Your task to perform on an android device: turn off location history Image 0: 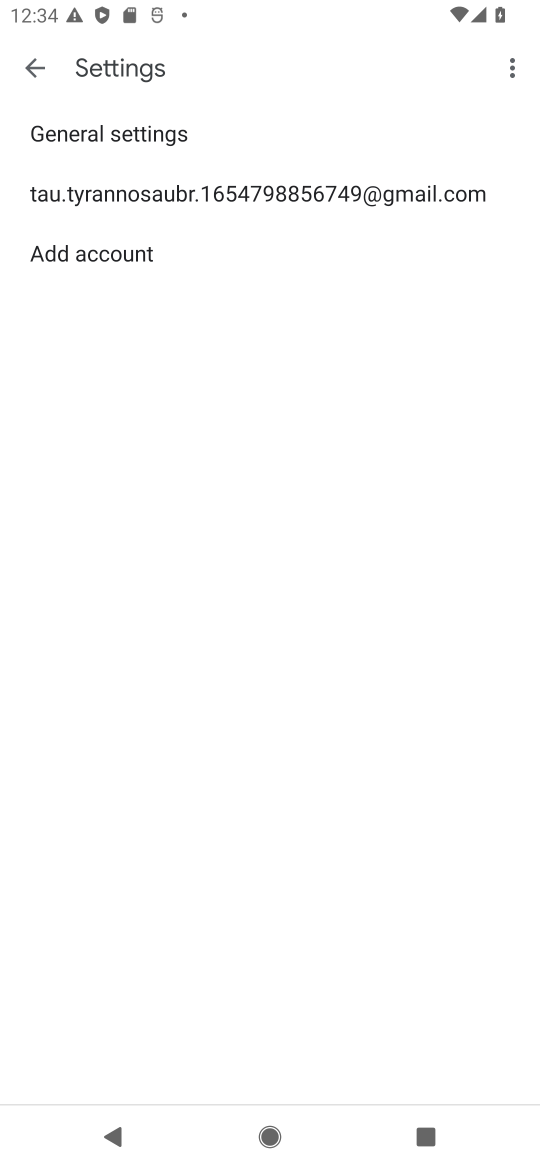
Step 0: press home button
Your task to perform on an android device: turn off location history Image 1: 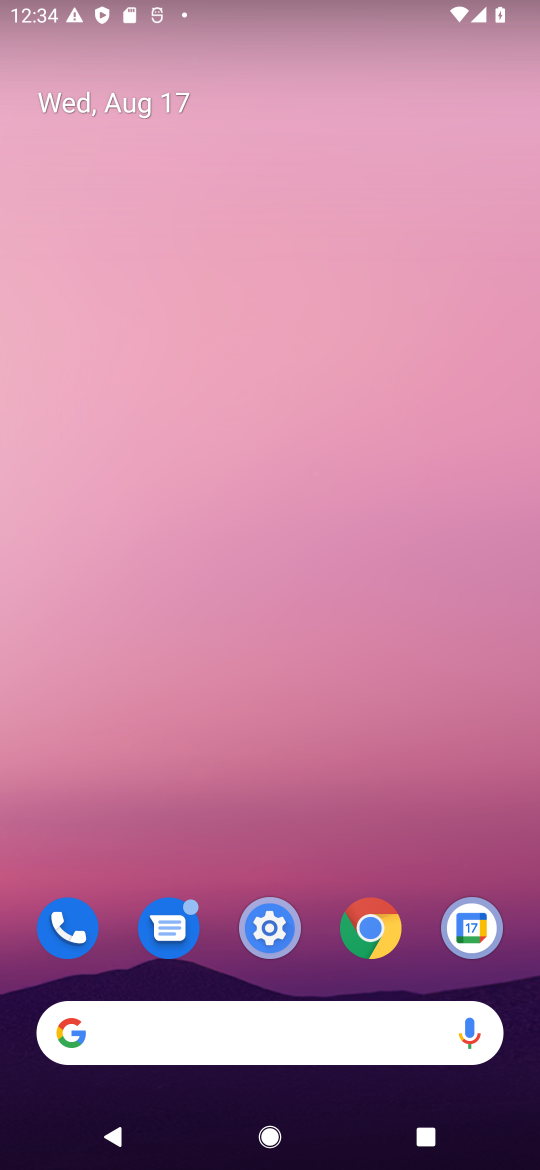
Step 1: click (262, 915)
Your task to perform on an android device: turn off location history Image 2: 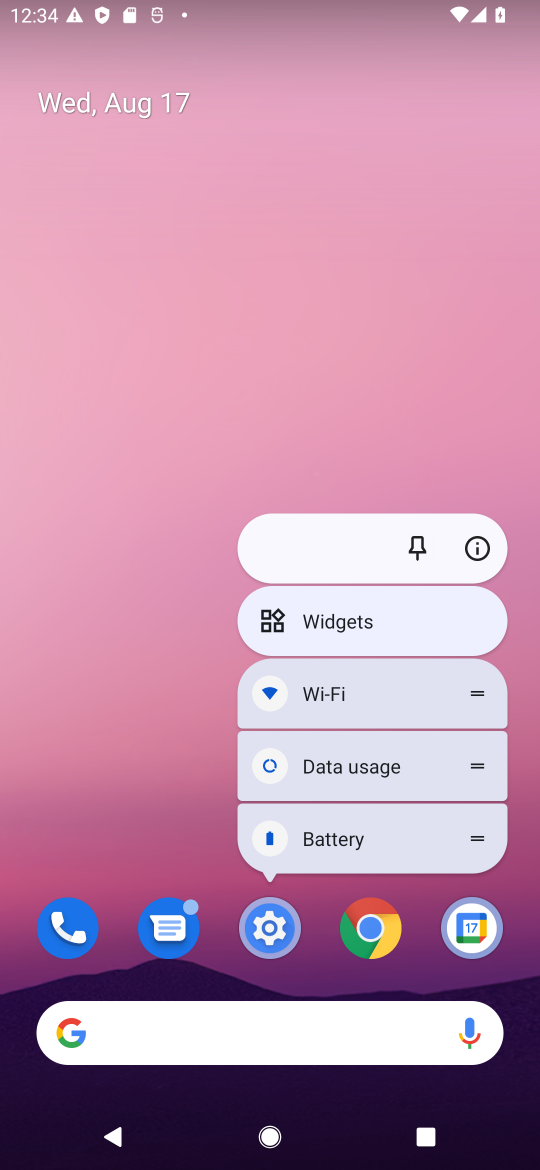
Step 2: click (267, 927)
Your task to perform on an android device: turn off location history Image 3: 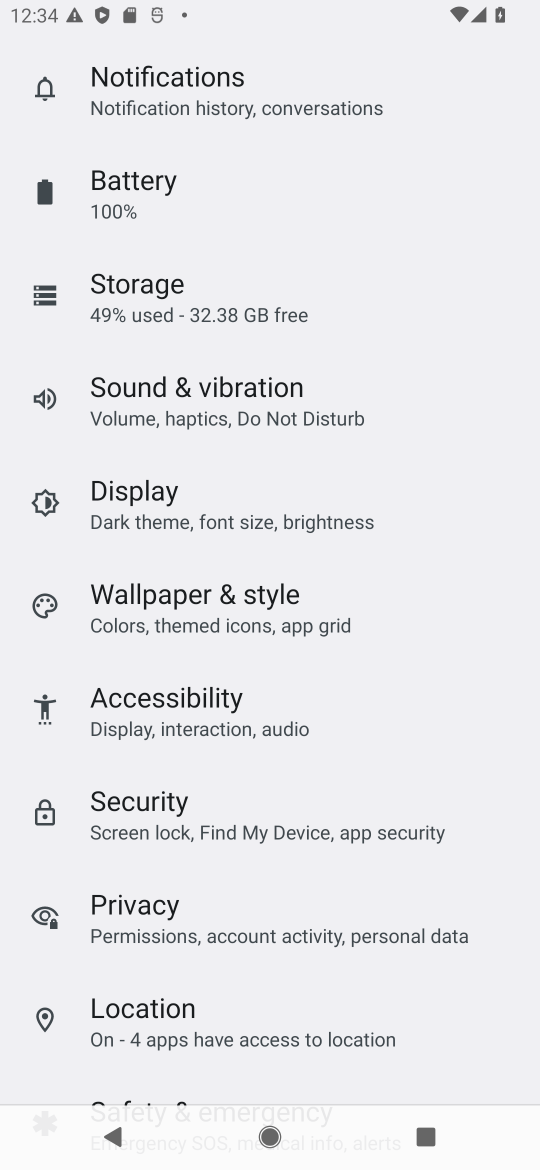
Step 3: click (211, 1019)
Your task to perform on an android device: turn off location history Image 4: 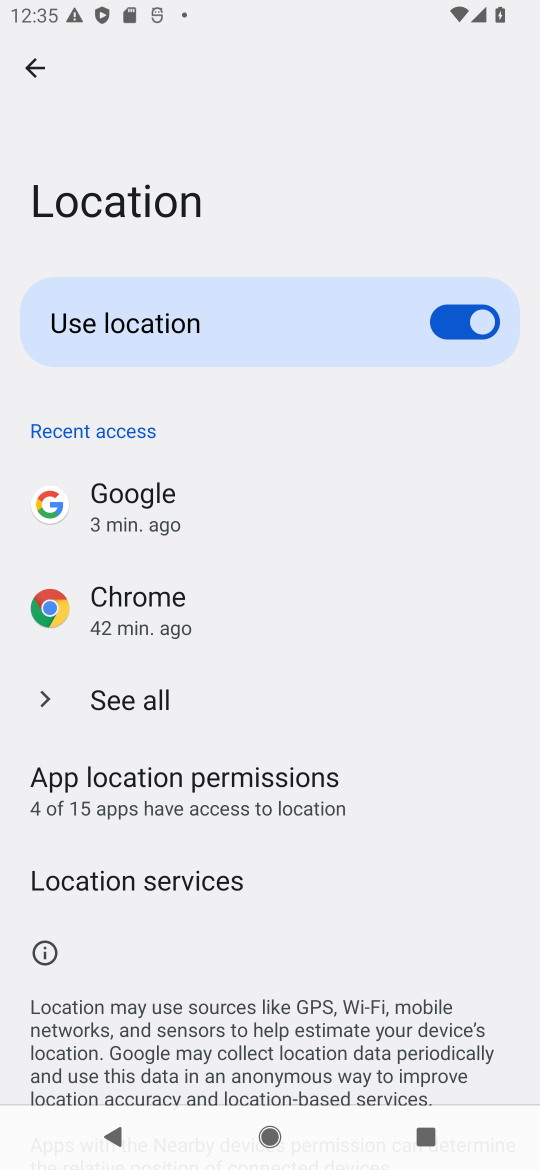
Step 4: click (223, 887)
Your task to perform on an android device: turn off location history Image 5: 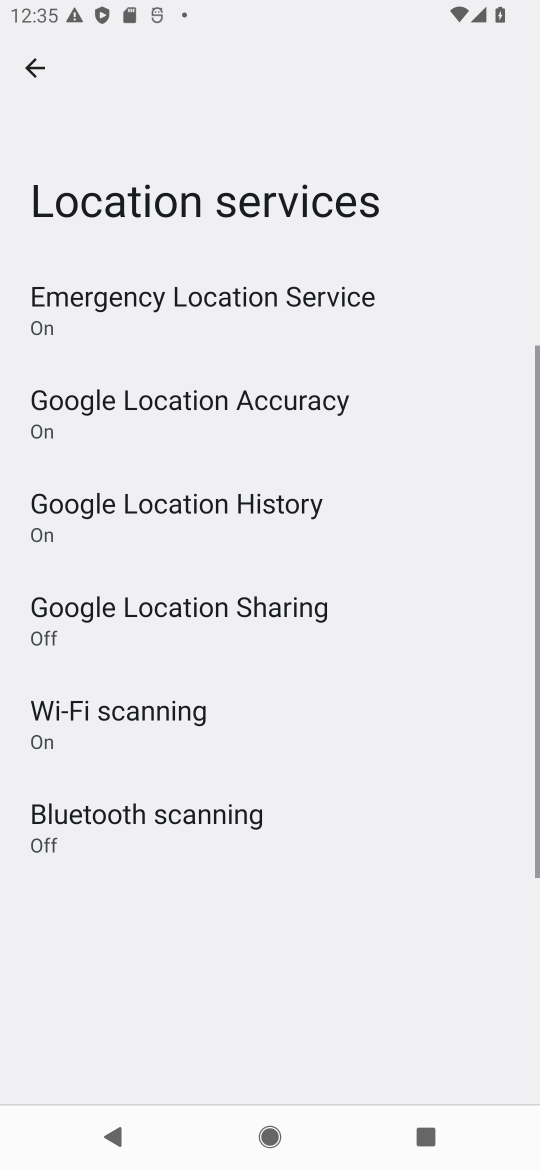
Step 5: click (224, 503)
Your task to perform on an android device: turn off location history Image 6: 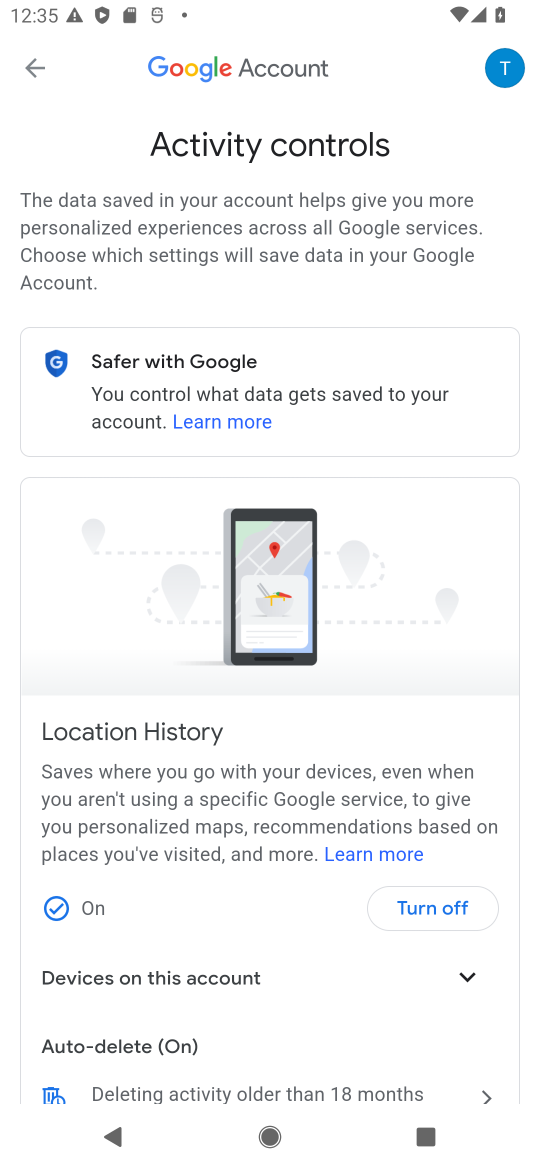
Step 6: click (418, 901)
Your task to perform on an android device: turn off location history Image 7: 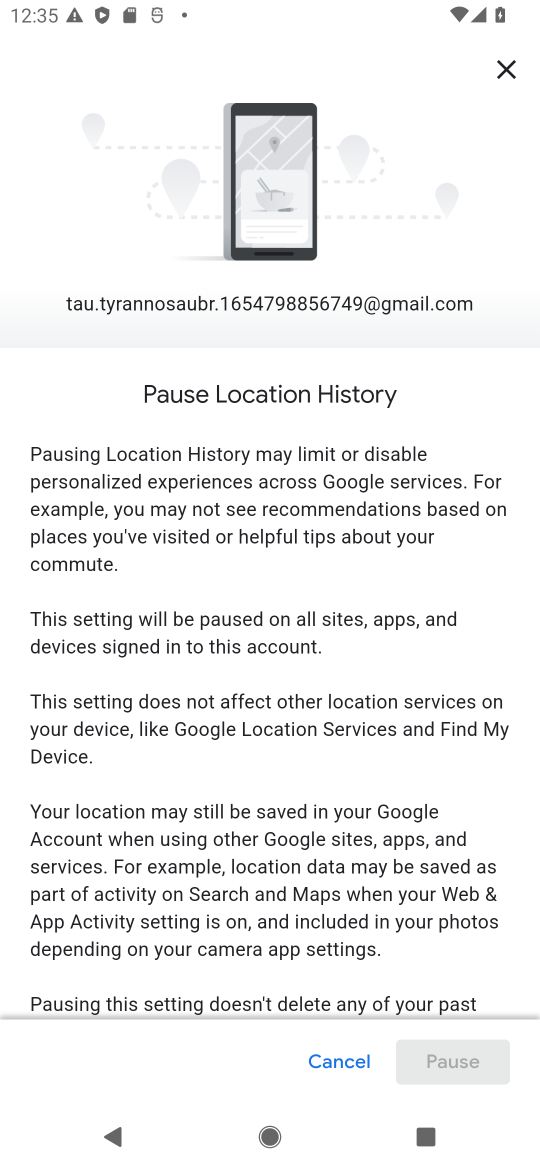
Step 7: drag from (321, 875) to (325, 507)
Your task to perform on an android device: turn off location history Image 8: 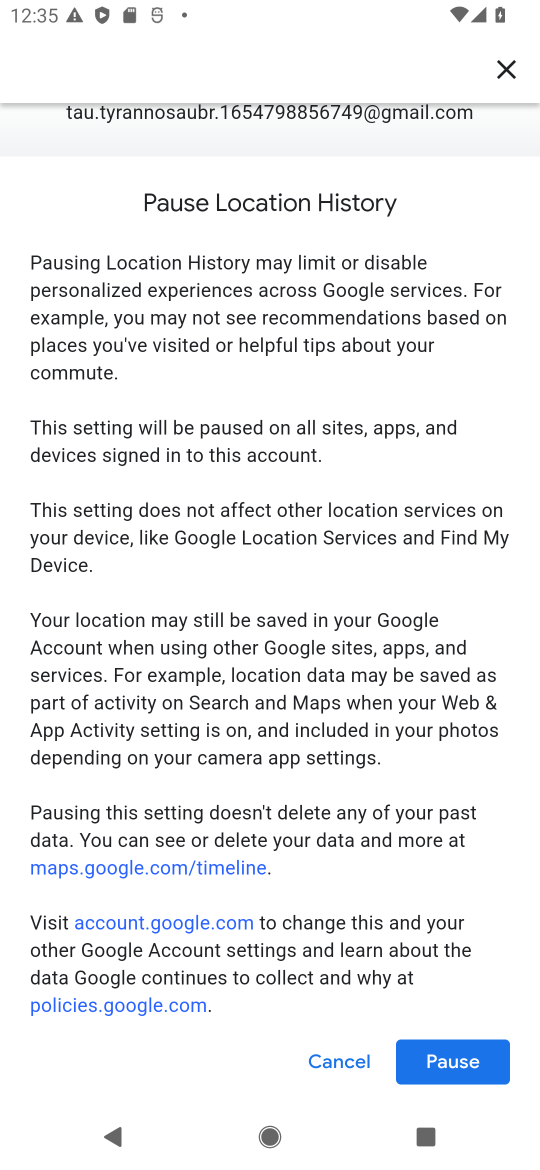
Step 8: click (441, 1074)
Your task to perform on an android device: turn off location history Image 9: 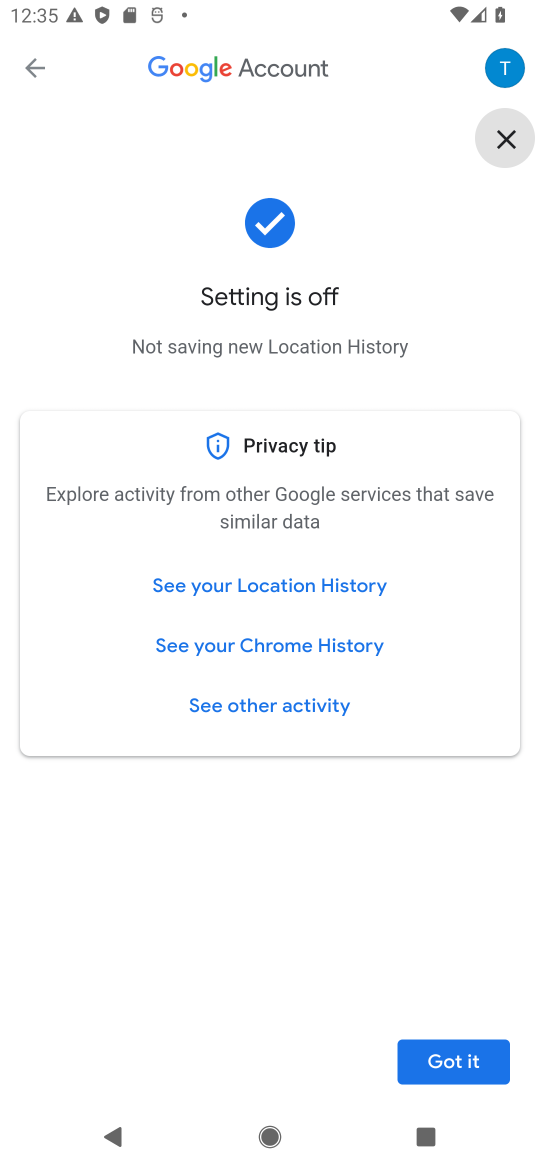
Step 9: click (436, 1051)
Your task to perform on an android device: turn off location history Image 10: 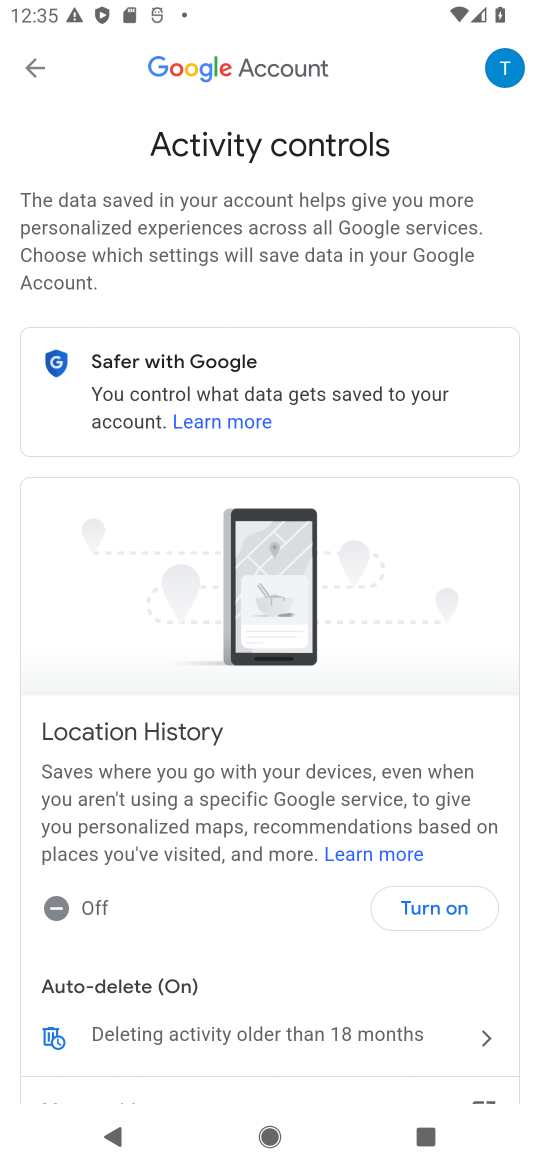
Step 10: task complete